Your task to perform on an android device: change timer sound Image 0: 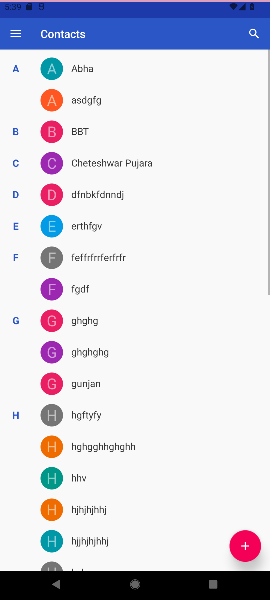
Step 0: press home button
Your task to perform on an android device: change timer sound Image 1: 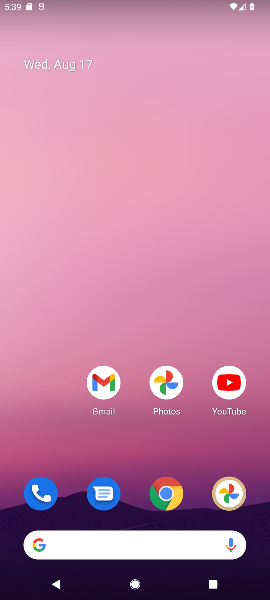
Step 1: drag from (132, 509) to (124, 138)
Your task to perform on an android device: change timer sound Image 2: 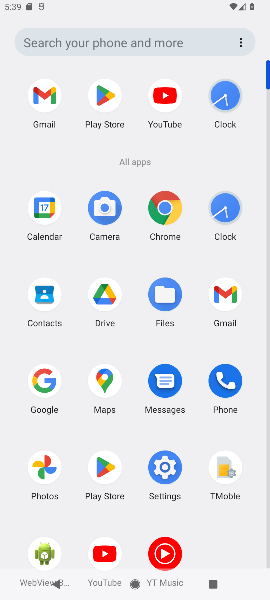
Step 2: click (231, 97)
Your task to perform on an android device: change timer sound Image 3: 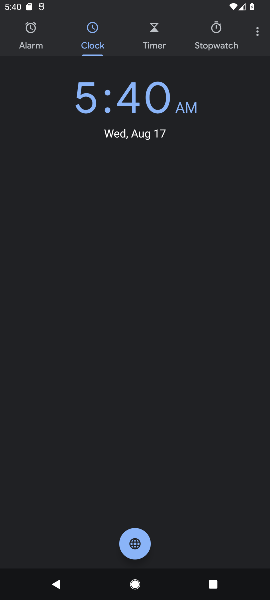
Step 3: click (261, 33)
Your task to perform on an android device: change timer sound Image 4: 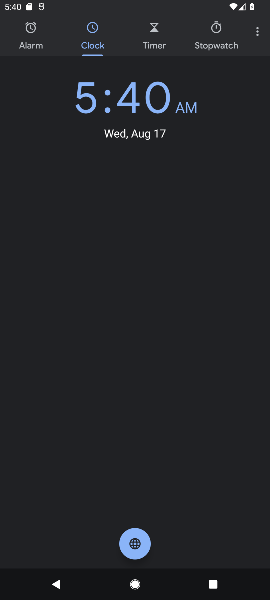
Step 4: click (256, 29)
Your task to perform on an android device: change timer sound Image 5: 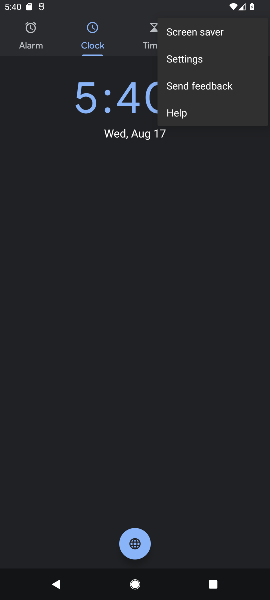
Step 5: click (173, 63)
Your task to perform on an android device: change timer sound Image 6: 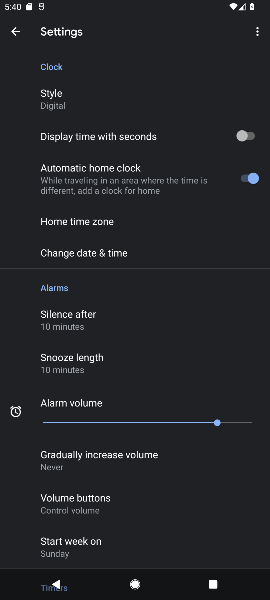
Step 6: drag from (143, 473) to (267, 172)
Your task to perform on an android device: change timer sound Image 7: 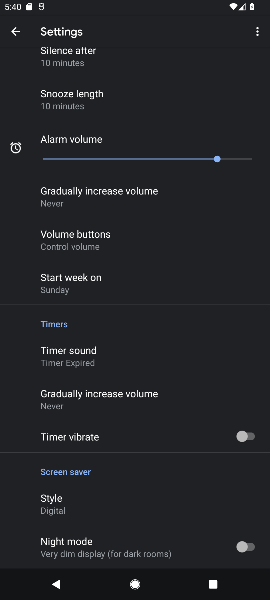
Step 7: click (68, 362)
Your task to perform on an android device: change timer sound Image 8: 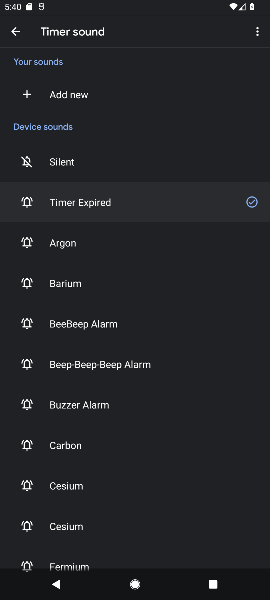
Step 8: click (71, 243)
Your task to perform on an android device: change timer sound Image 9: 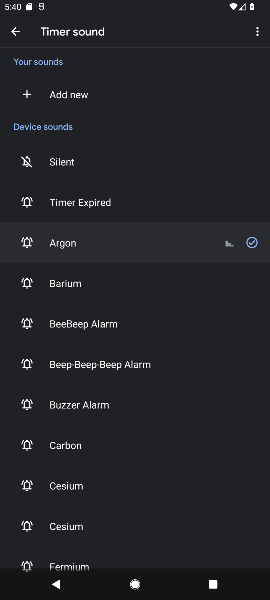
Step 9: task complete